Your task to perform on an android device: change keyboard looks Image 0: 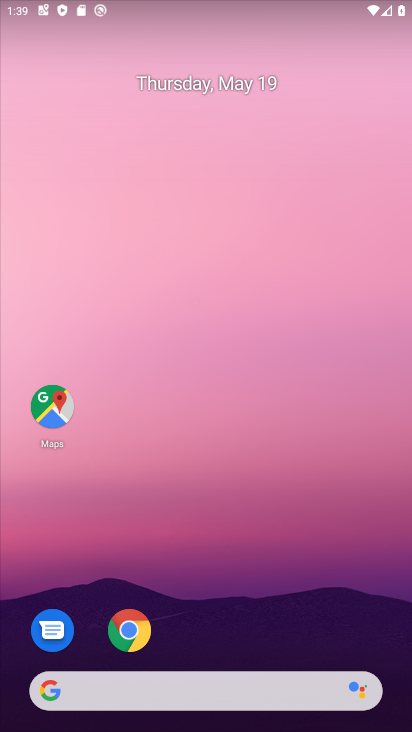
Step 0: drag from (378, 649) to (331, 120)
Your task to perform on an android device: change keyboard looks Image 1: 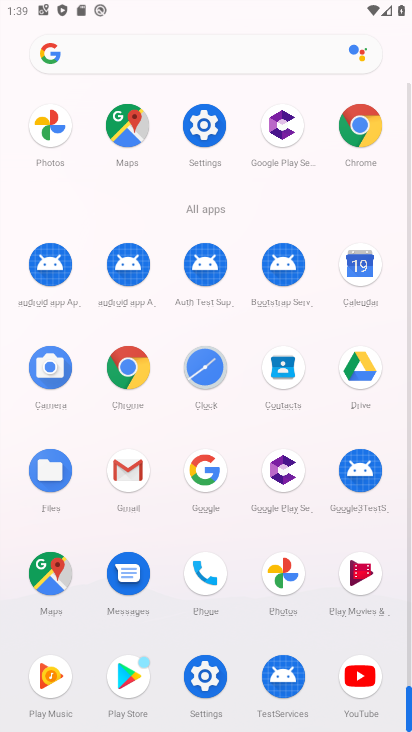
Step 1: click (204, 673)
Your task to perform on an android device: change keyboard looks Image 2: 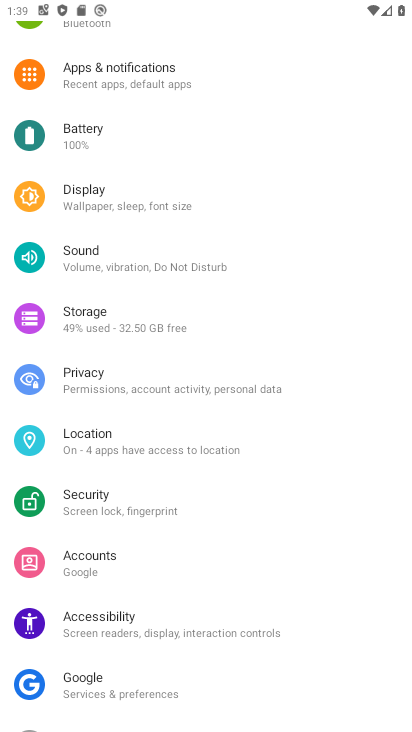
Step 2: drag from (323, 652) to (320, 244)
Your task to perform on an android device: change keyboard looks Image 3: 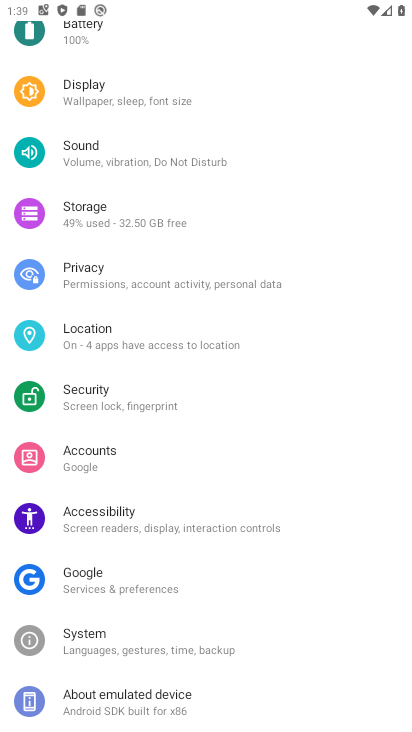
Step 3: click (99, 628)
Your task to perform on an android device: change keyboard looks Image 4: 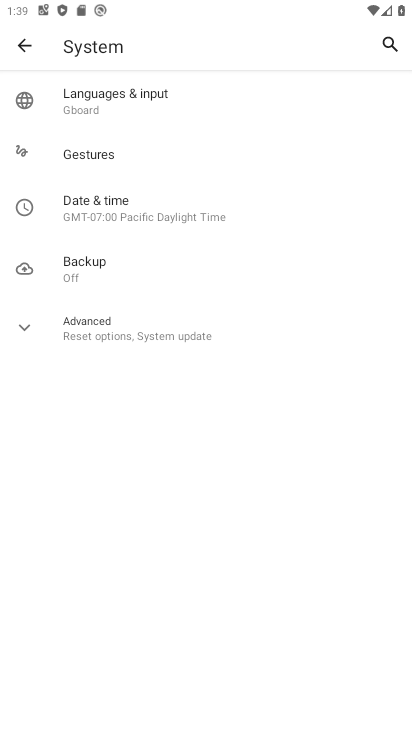
Step 4: click (92, 93)
Your task to perform on an android device: change keyboard looks Image 5: 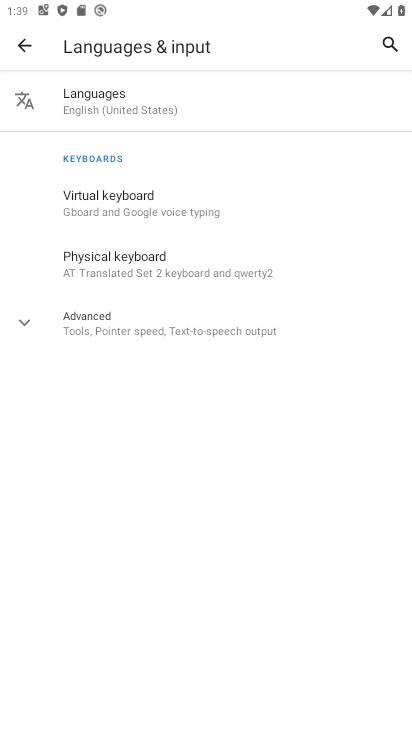
Step 5: click (105, 253)
Your task to perform on an android device: change keyboard looks Image 6: 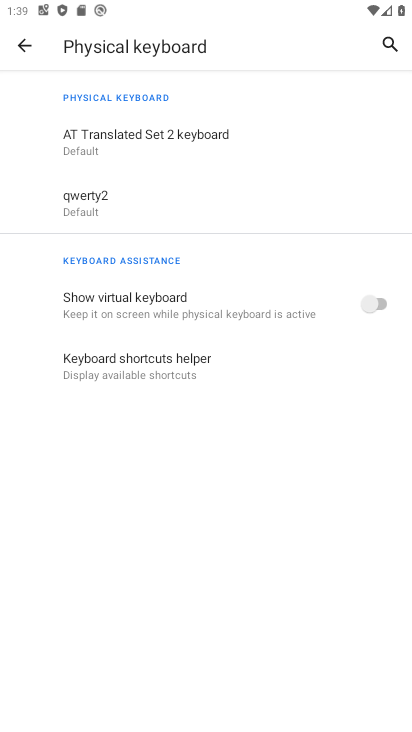
Step 6: click (82, 182)
Your task to perform on an android device: change keyboard looks Image 7: 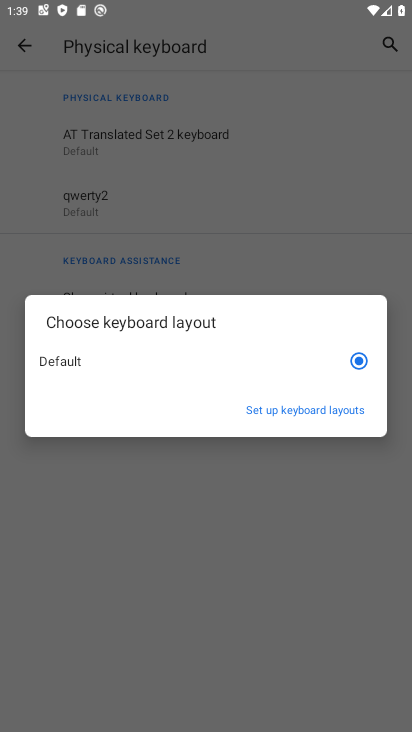
Step 7: click (327, 416)
Your task to perform on an android device: change keyboard looks Image 8: 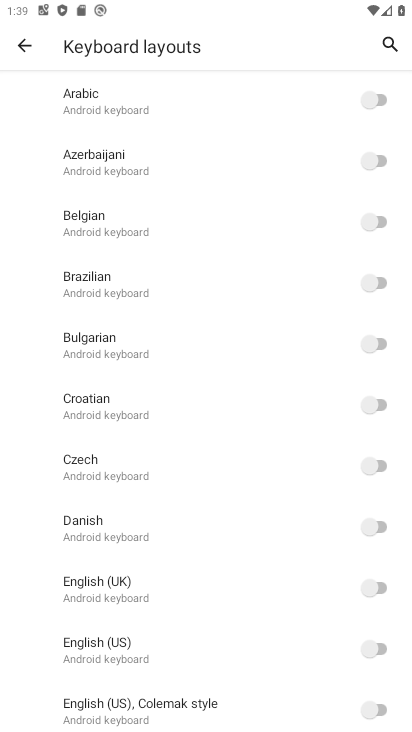
Step 8: click (383, 587)
Your task to perform on an android device: change keyboard looks Image 9: 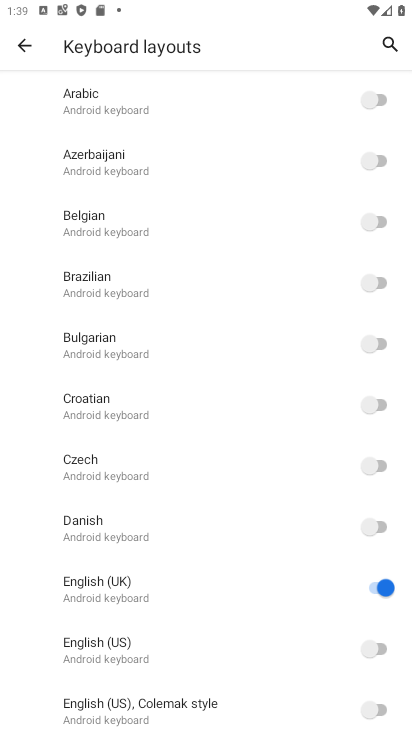
Step 9: task complete